Your task to perform on an android device: open chrome privacy settings Image 0: 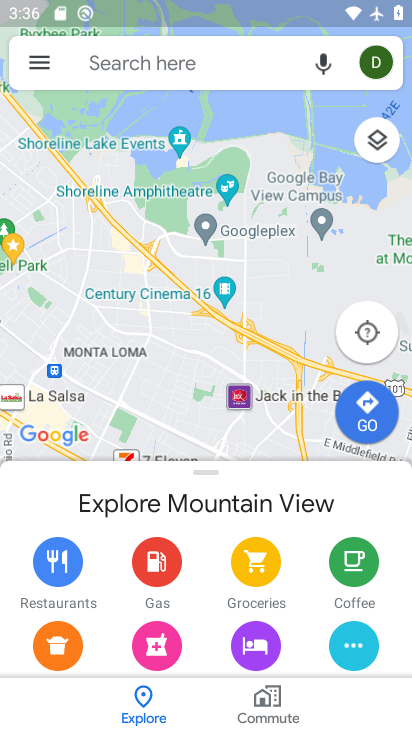
Step 0: press home button
Your task to perform on an android device: open chrome privacy settings Image 1: 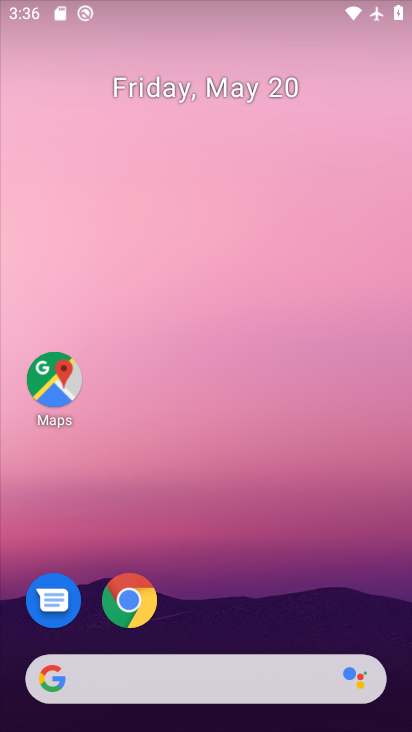
Step 1: drag from (294, 558) to (174, 7)
Your task to perform on an android device: open chrome privacy settings Image 2: 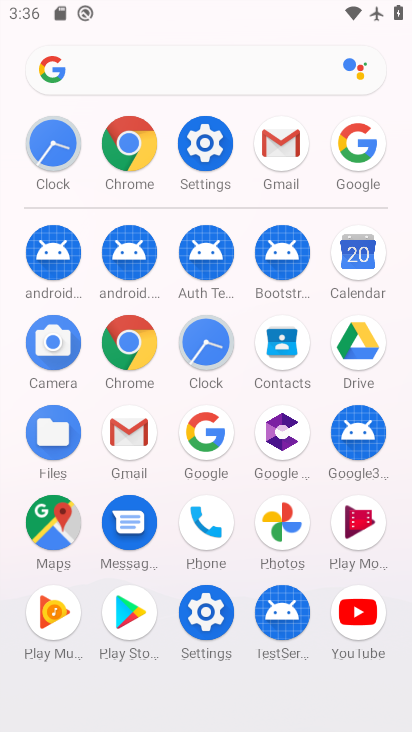
Step 2: click (132, 356)
Your task to perform on an android device: open chrome privacy settings Image 3: 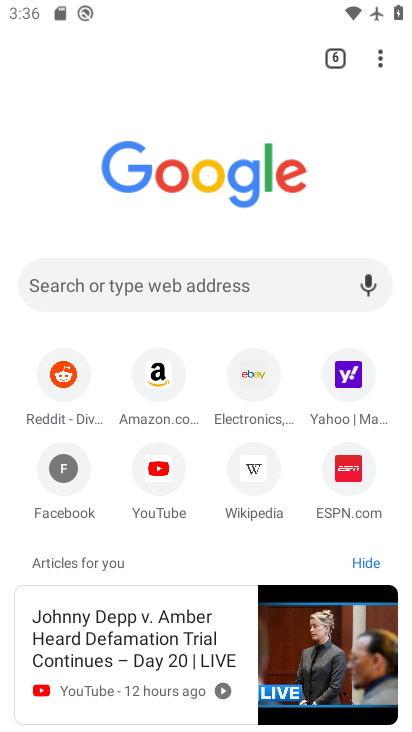
Step 3: click (378, 73)
Your task to perform on an android device: open chrome privacy settings Image 4: 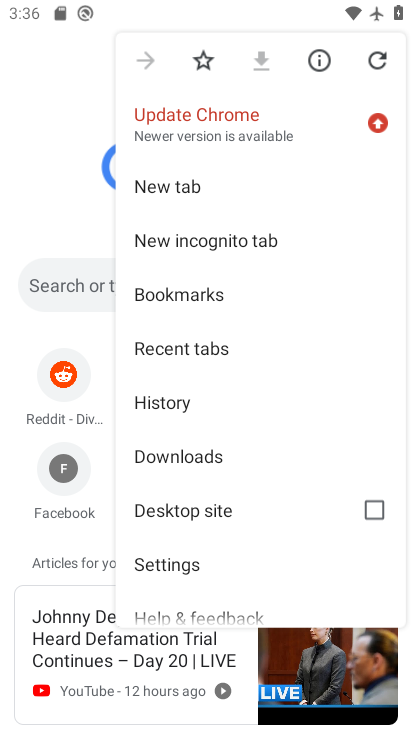
Step 4: click (209, 552)
Your task to perform on an android device: open chrome privacy settings Image 5: 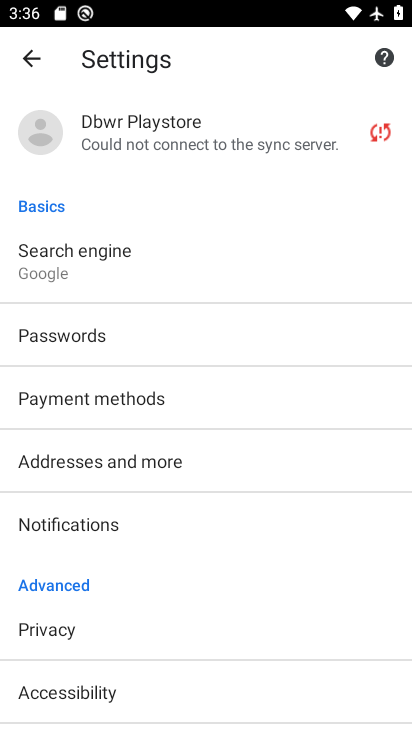
Step 5: click (140, 626)
Your task to perform on an android device: open chrome privacy settings Image 6: 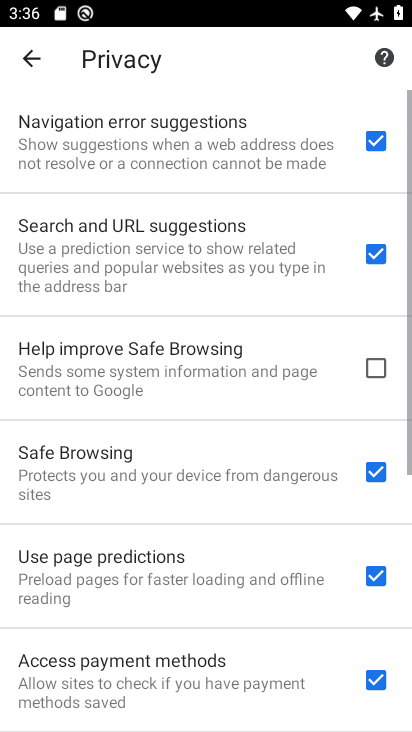
Step 6: task complete